Your task to perform on an android device: Go to internet settings Image 0: 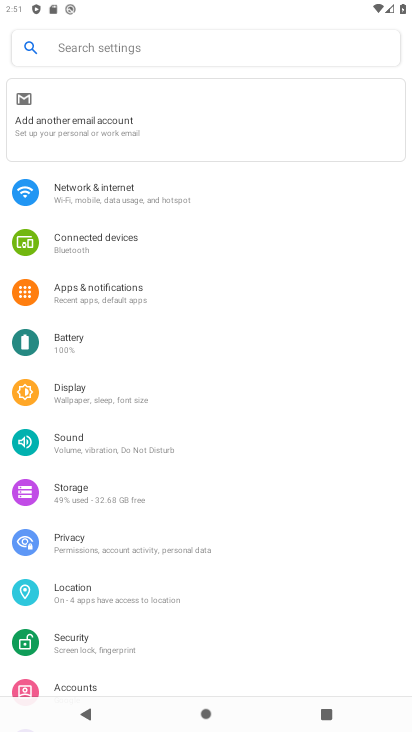
Step 0: press home button
Your task to perform on an android device: Go to internet settings Image 1: 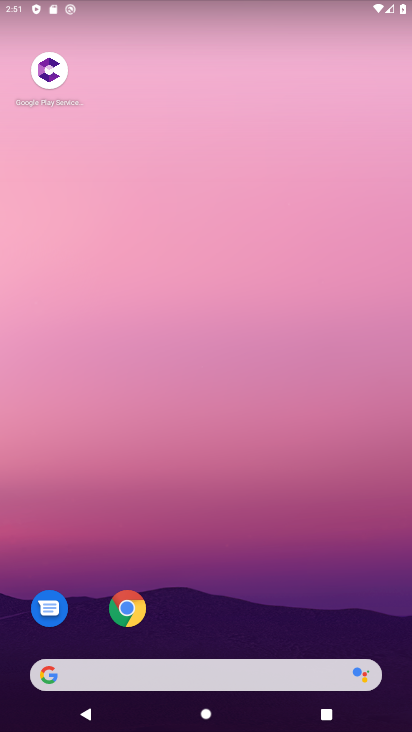
Step 1: drag from (256, 719) to (229, 12)
Your task to perform on an android device: Go to internet settings Image 2: 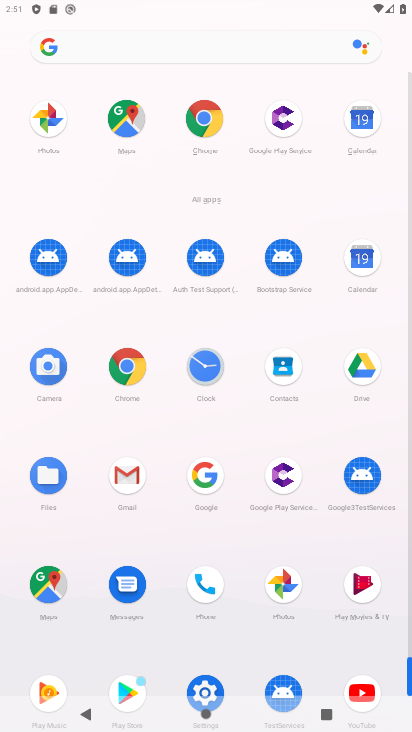
Step 2: drag from (245, 517) to (245, 463)
Your task to perform on an android device: Go to internet settings Image 3: 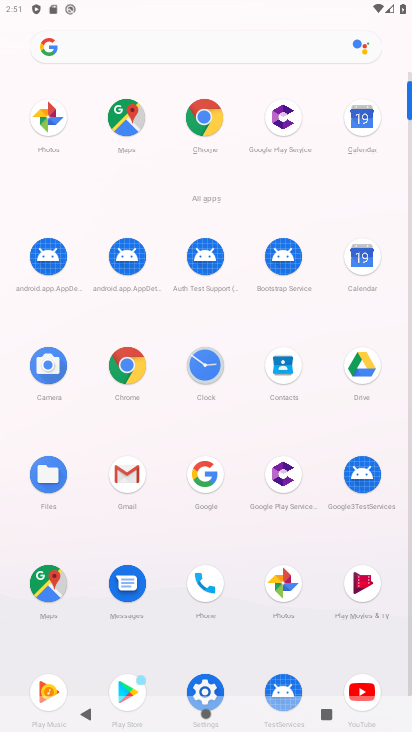
Step 3: click (205, 683)
Your task to perform on an android device: Go to internet settings Image 4: 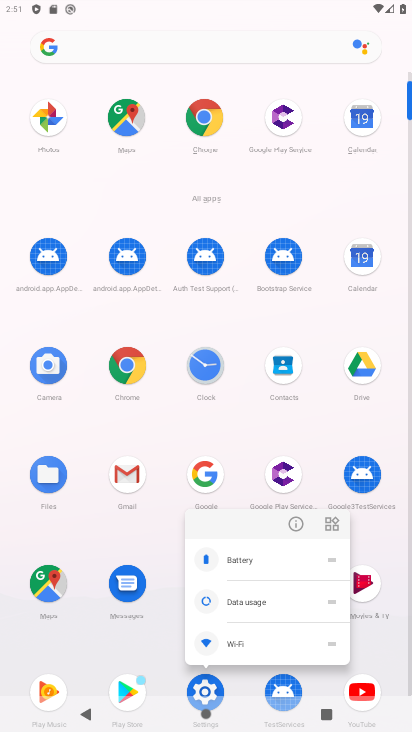
Step 4: click (204, 687)
Your task to perform on an android device: Go to internet settings Image 5: 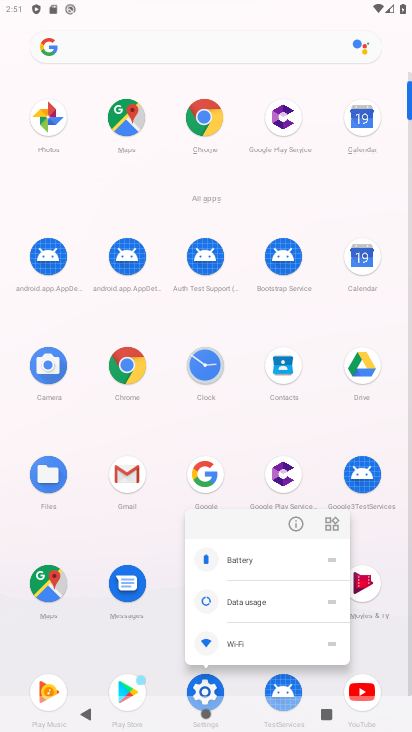
Step 5: click (204, 687)
Your task to perform on an android device: Go to internet settings Image 6: 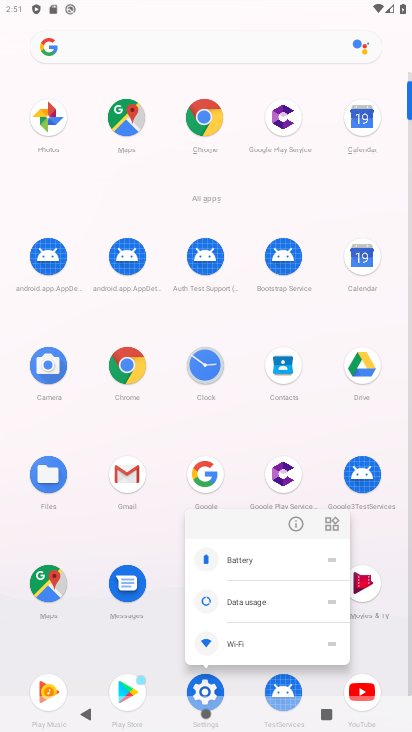
Step 6: click (204, 687)
Your task to perform on an android device: Go to internet settings Image 7: 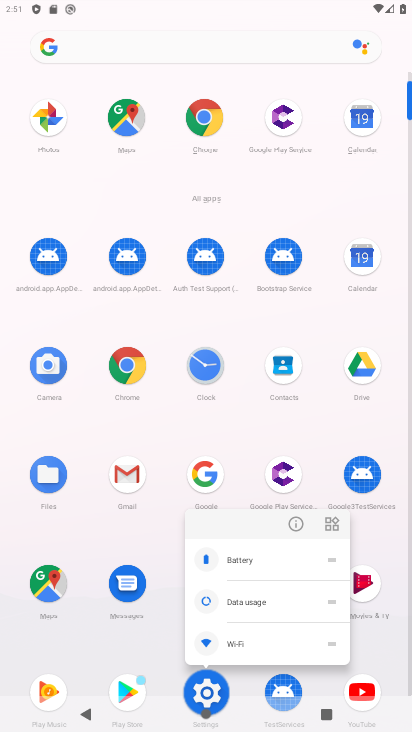
Step 7: click (204, 687)
Your task to perform on an android device: Go to internet settings Image 8: 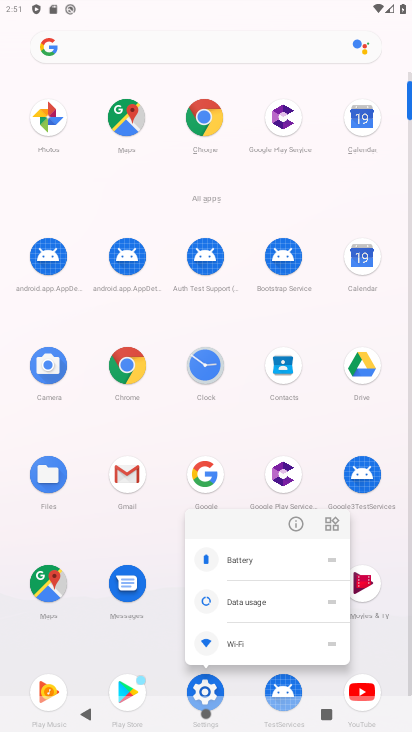
Step 8: click (205, 679)
Your task to perform on an android device: Go to internet settings Image 9: 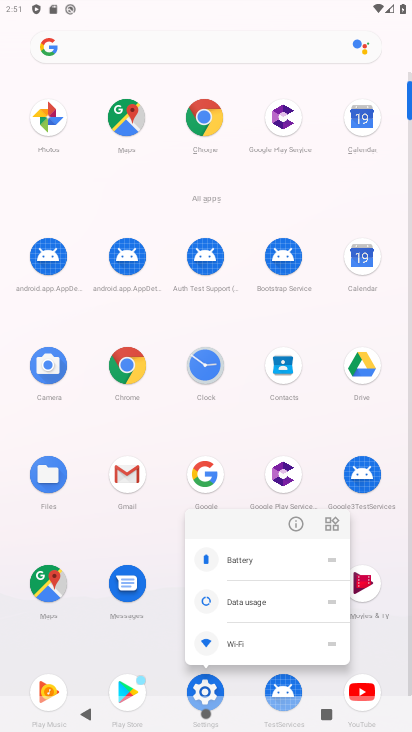
Step 9: click (205, 673)
Your task to perform on an android device: Go to internet settings Image 10: 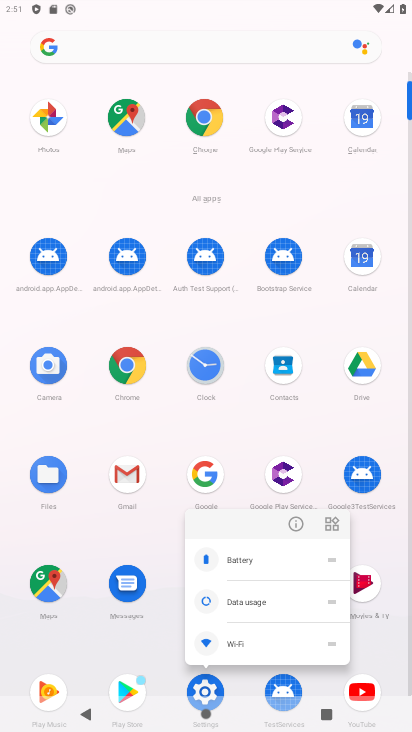
Step 10: click (206, 683)
Your task to perform on an android device: Go to internet settings Image 11: 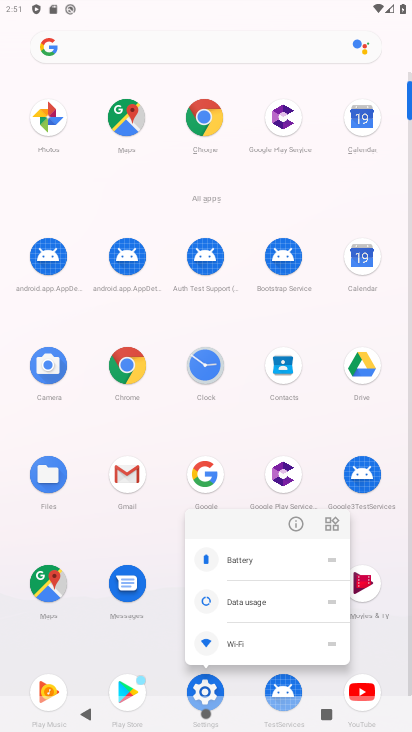
Step 11: click (206, 682)
Your task to perform on an android device: Go to internet settings Image 12: 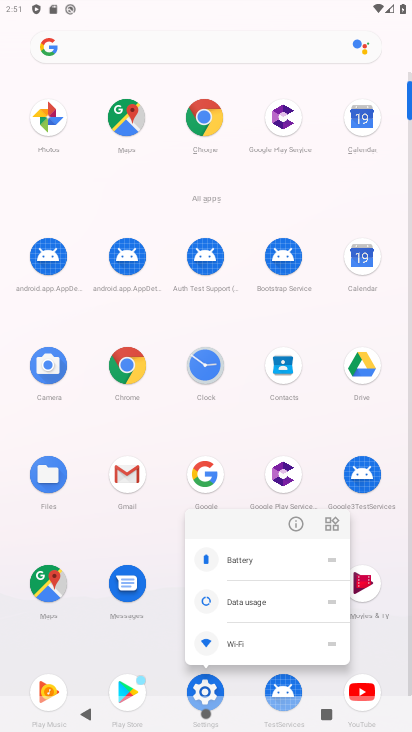
Step 12: click (207, 680)
Your task to perform on an android device: Go to internet settings Image 13: 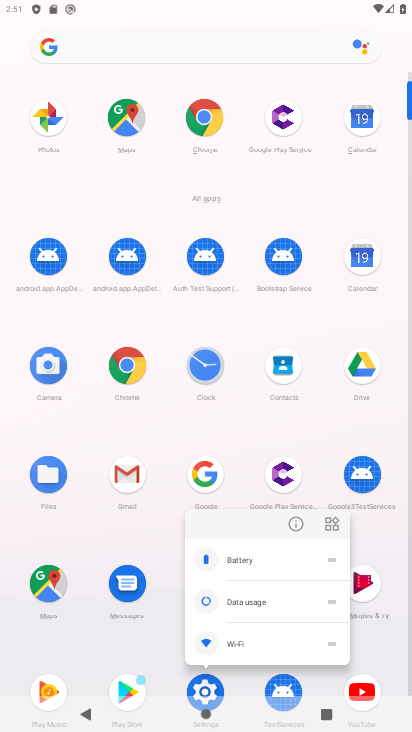
Step 13: click (209, 683)
Your task to perform on an android device: Go to internet settings Image 14: 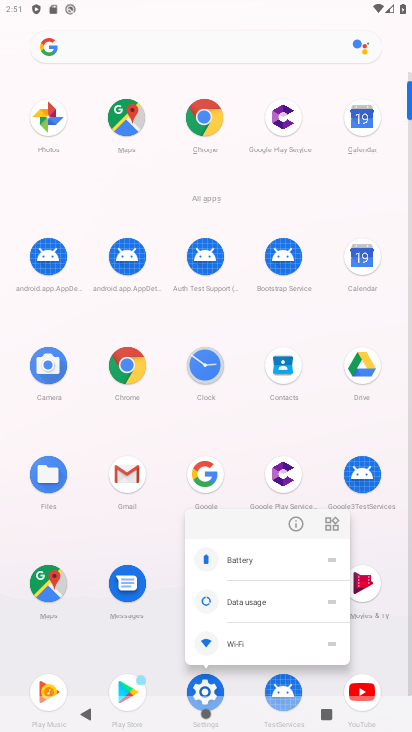
Step 14: click (209, 683)
Your task to perform on an android device: Go to internet settings Image 15: 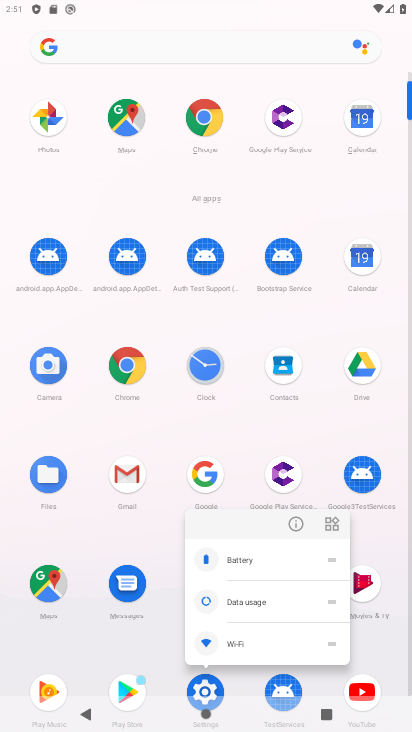
Step 15: click (209, 682)
Your task to perform on an android device: Go to internet settings Image 16: 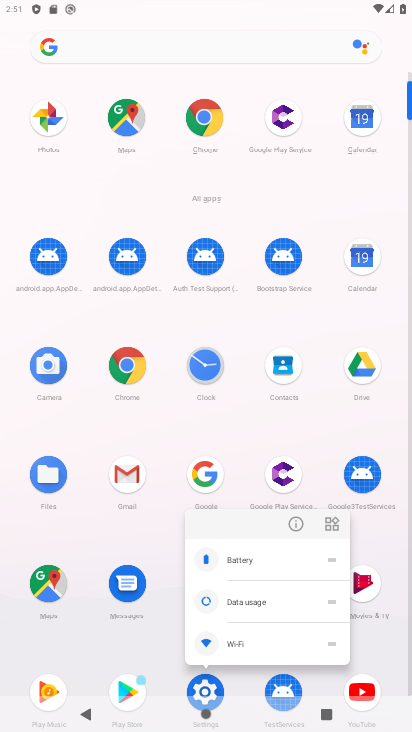
Step 16: click (209, 682)
Your task to perform on an android device: Go to internet settings Image 17: 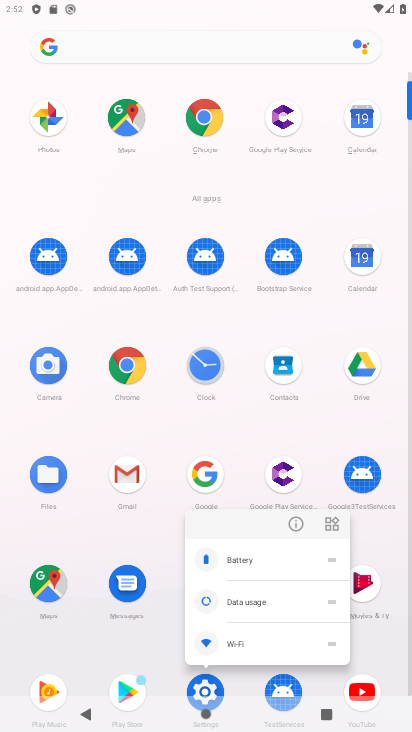
Step 17: click (209, 681)
Your task to perform on an android device: Go to internet settings Image 18: 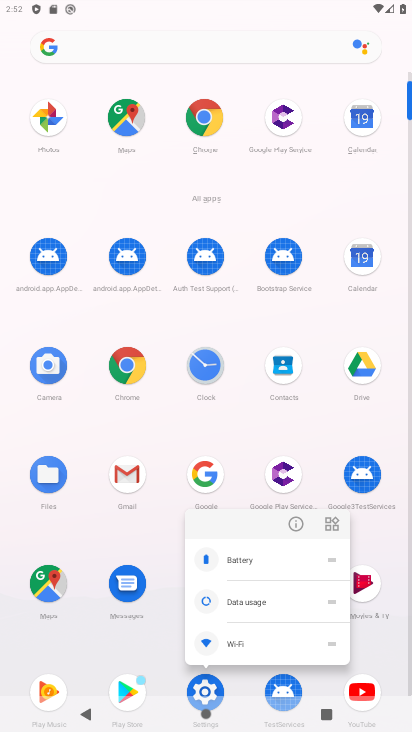
Step 18: click (205, 681)
Your task to perform on an android device: Go to internet settings Image 19: 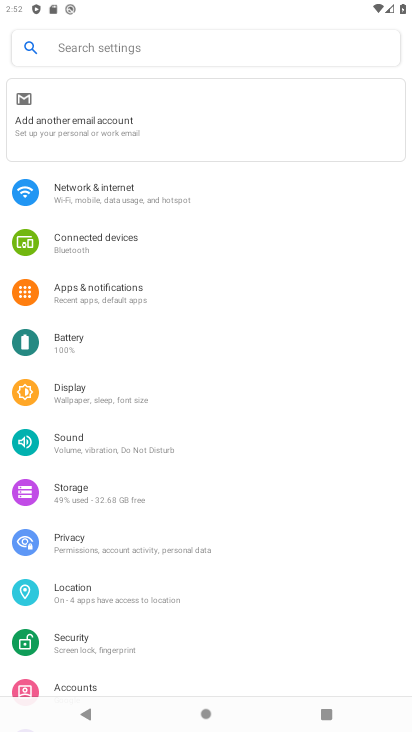
Step 19: click (78, 199)
Your task to perform on an android device: Go to internet settings Image 20: 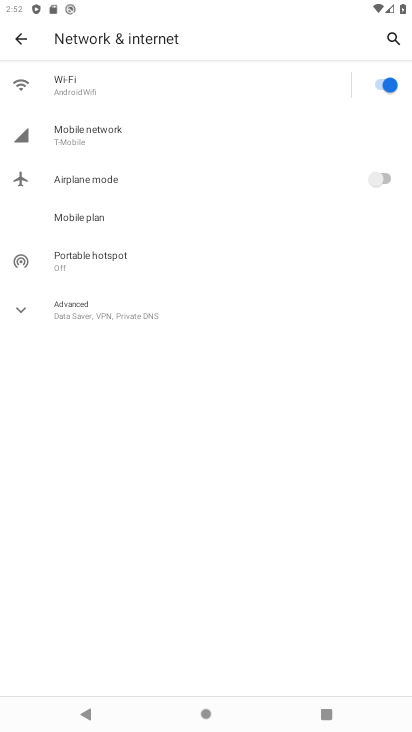
Step 20: task complete